Your task to perform on an android device: Is it going to rain tomorrow? Image 0: 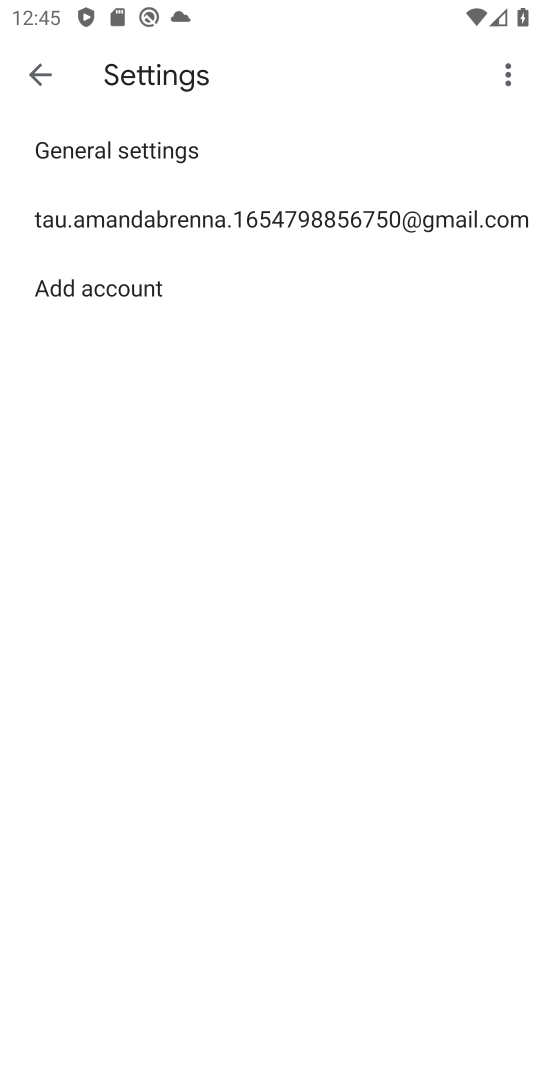
Step 0: press home button
Your task to perform on an android device: Is it going to rain tomorrow? Image 1: 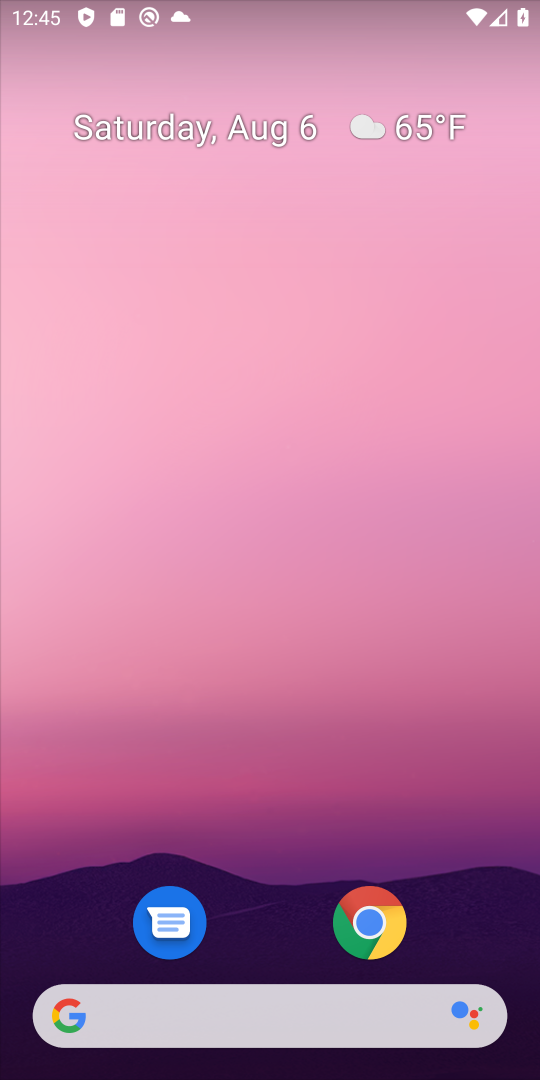
Step 1: click (260, 385)
Your task to perform on an android device: Is it going to rain tomorrow? Image 2: 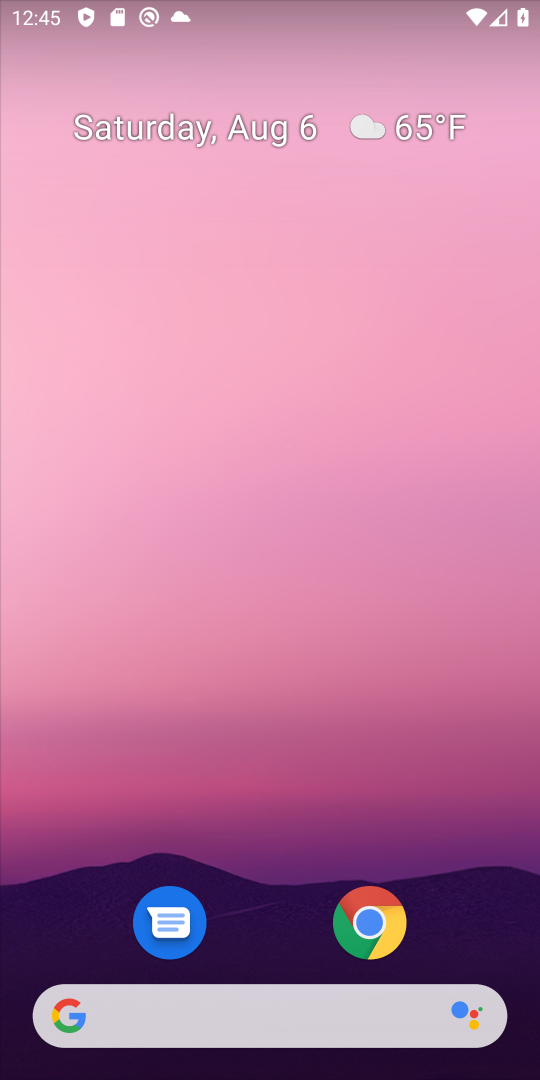
Step 2: click (375, 116)
Your task to perform on an android device: Is it going to rain tomorrow? Image 3: 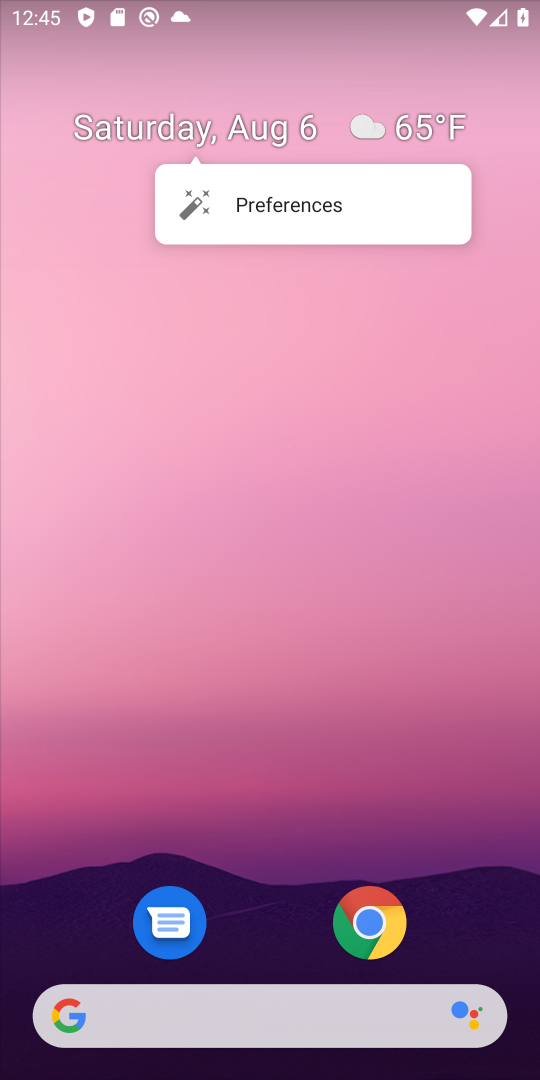
Step 3: click (412, 125)
Your task to perform on an android device: Is it going to rain tomorrow? Image 4: 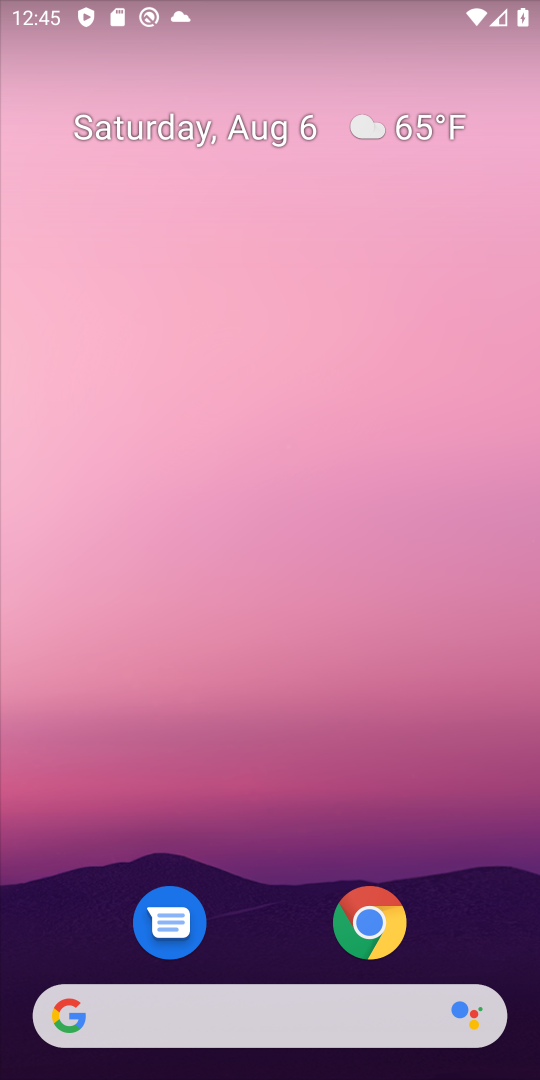
Step 4: click (398, 103)
Your task to perform on an android device: Is it going to rain tomorrow? Image 5: 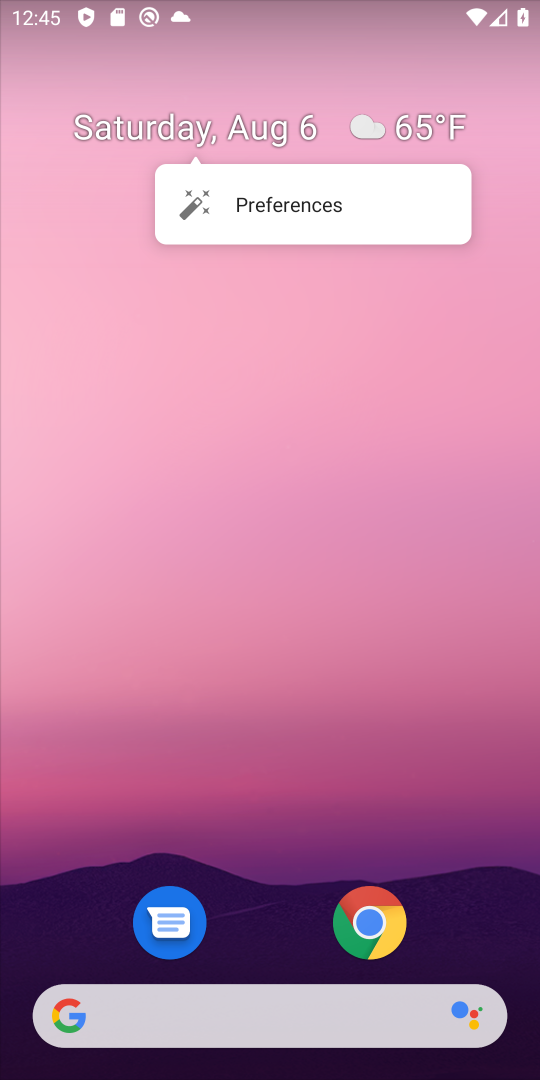
Step 5: click (380, 130)
Your task to perform on an android device: Is it going to rain tomorrow? Image 6: 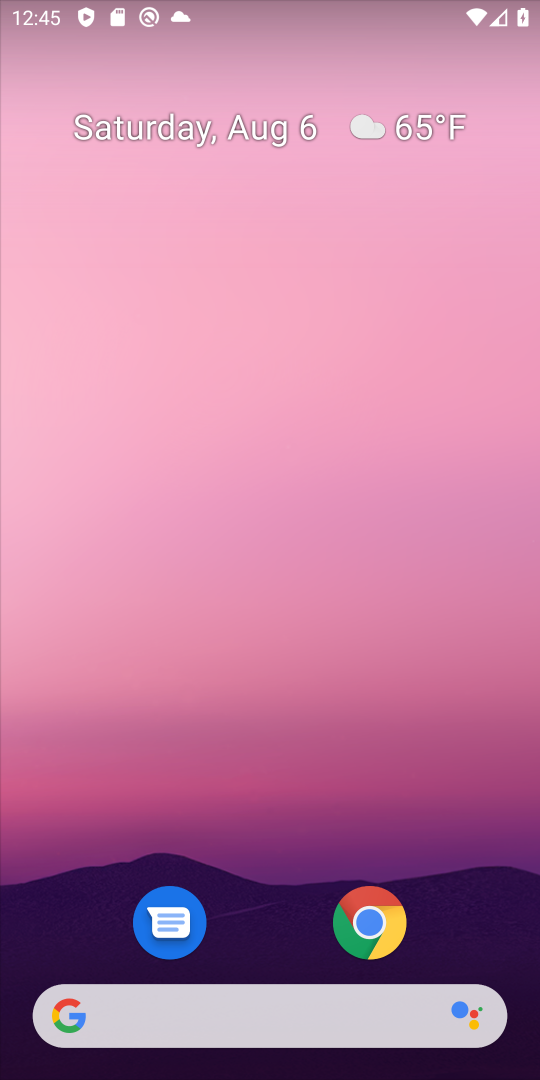
Step 6: click (379, 132)
Your task to perform on an android device: Is it going to rain tomorrow? Image 7: 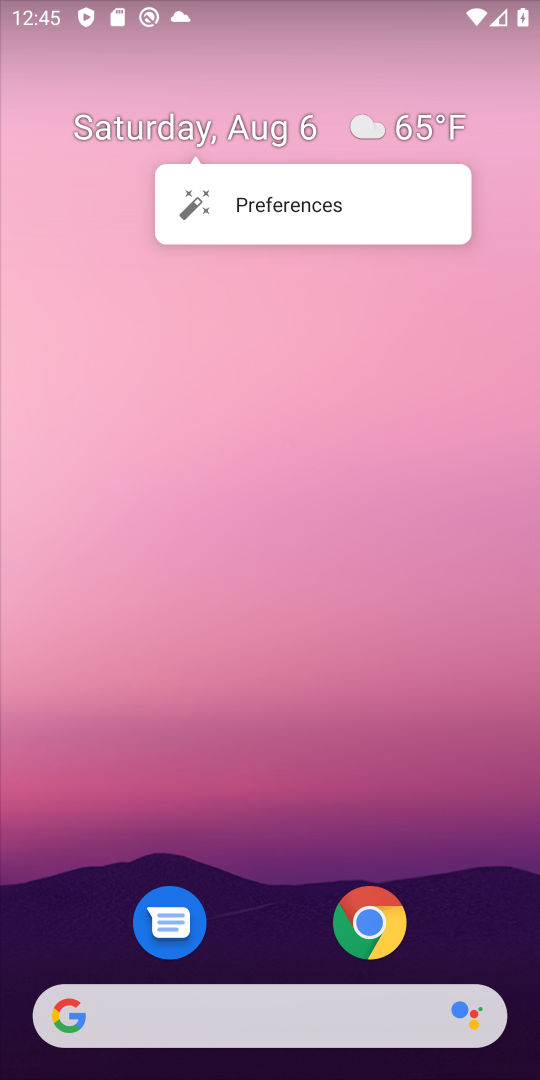
Step 7: click (397, 118)
Your task to perform on an android device: Is it going to rain tomorrow? Image 8: 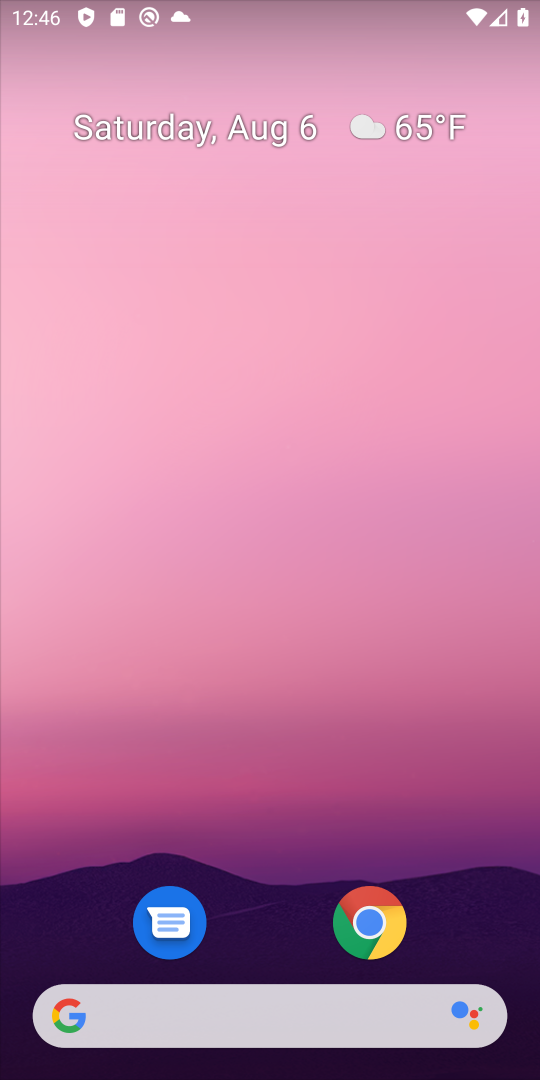
Step 8: click (403, 125)
Your task to perform on an android device: Is it going to rain tomorrow? Image 9: 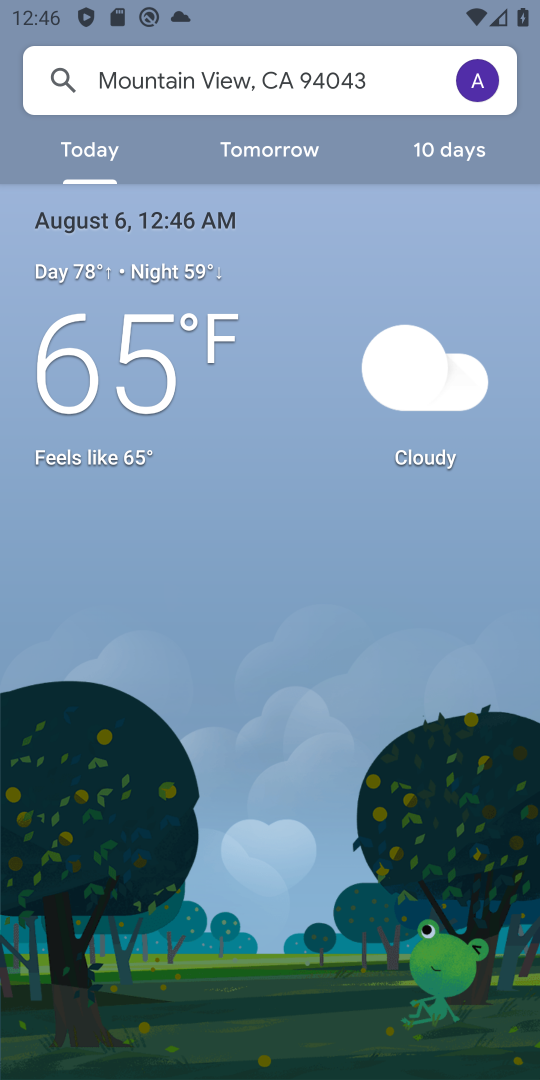
Step 9: click (285, 160)
Your task to perform on an android device: Is it going to rain tomorrow? Image 10: 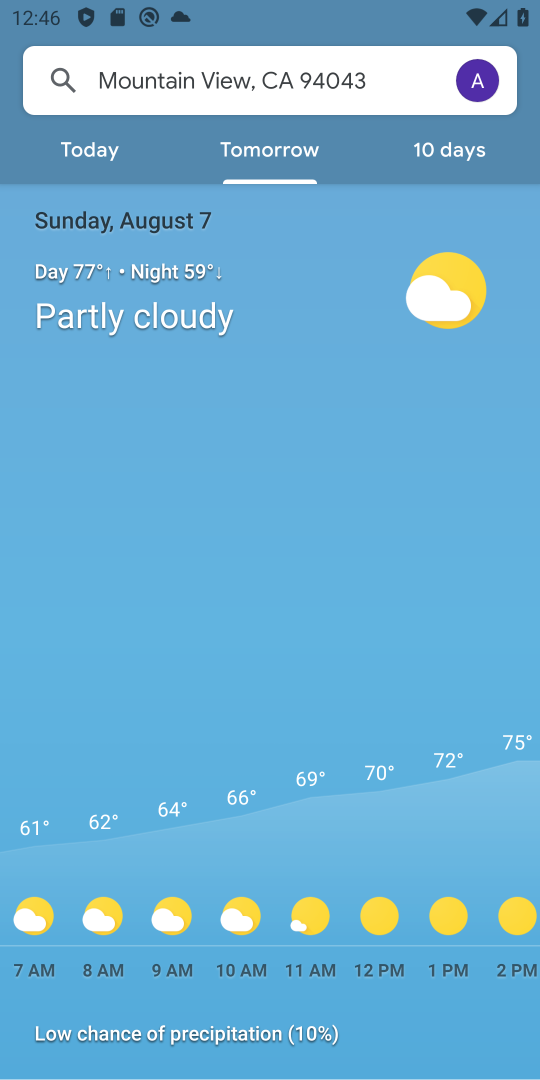
Step 10: task complete